Your task to perform on an android device: Go to Wikipedia Image 0: 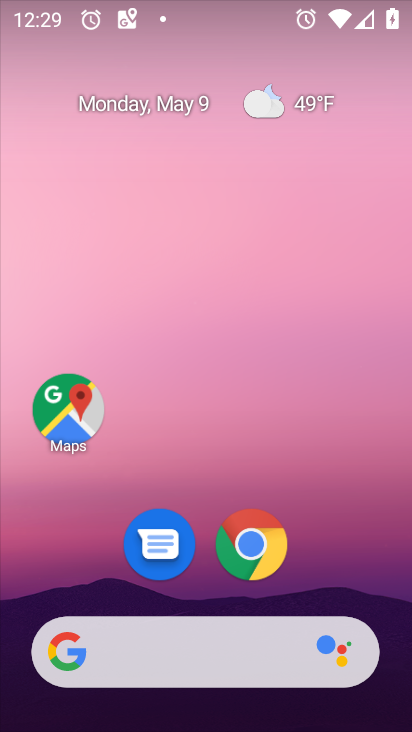
Step 0: click (238, 535)
Your task to perform on an android device: Go to Wikipedia Image 1: 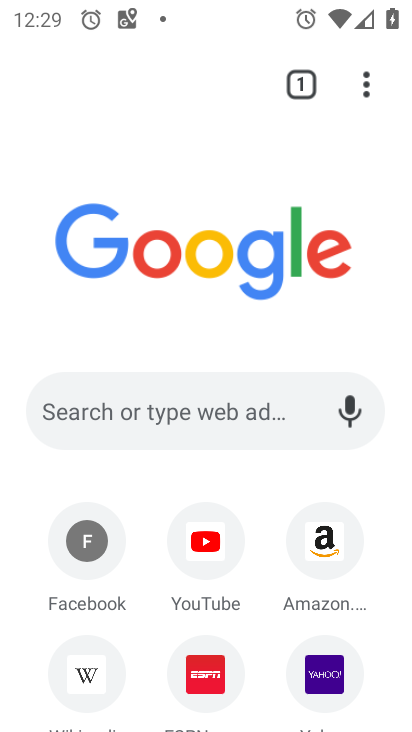
Step 1: click (68, 659)
Your task to perform on an android device: Go to Wikipedia Image 2: 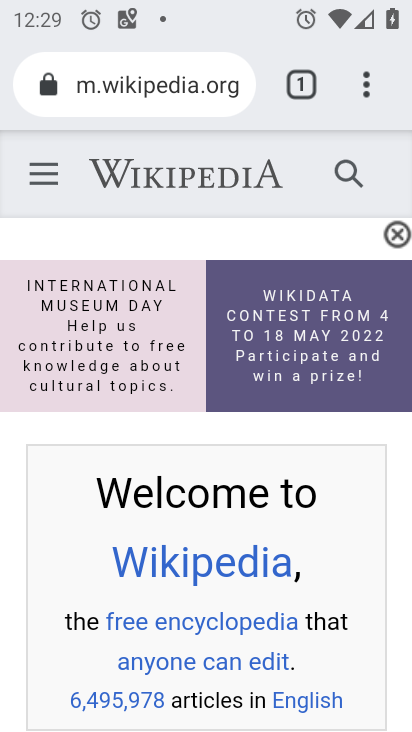
Step 2: task complete